Your task to perform on an android device: turn off airplane mode Image 0: 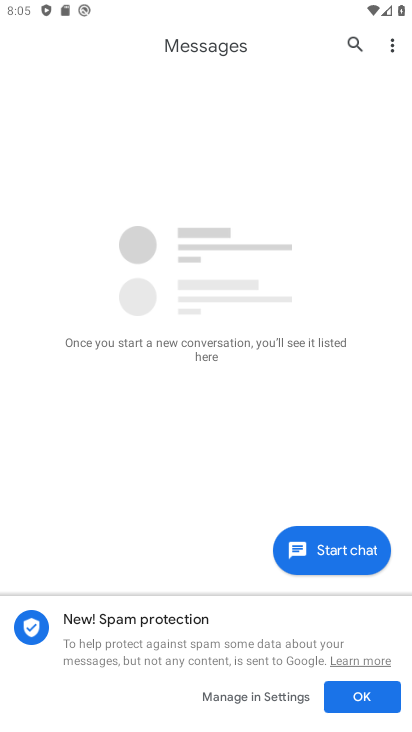
Step 0: press home button
Your task to perform on an android device: turn off airplane mode Image 1: 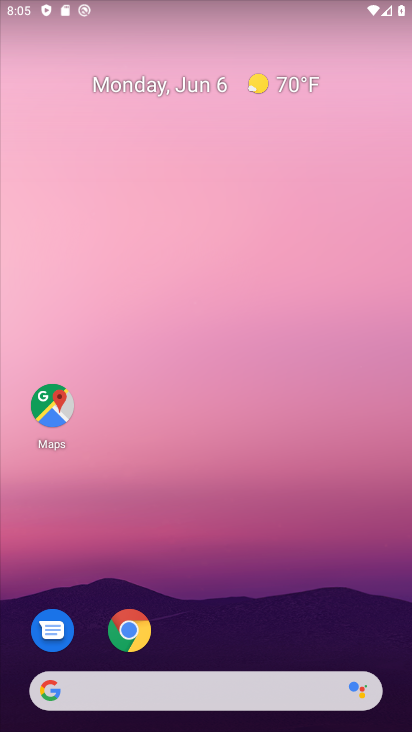
Step 1: drag from (233, 638) to (228, 290)
Your task to perform on an android device: turn off airplane mode Image 2: 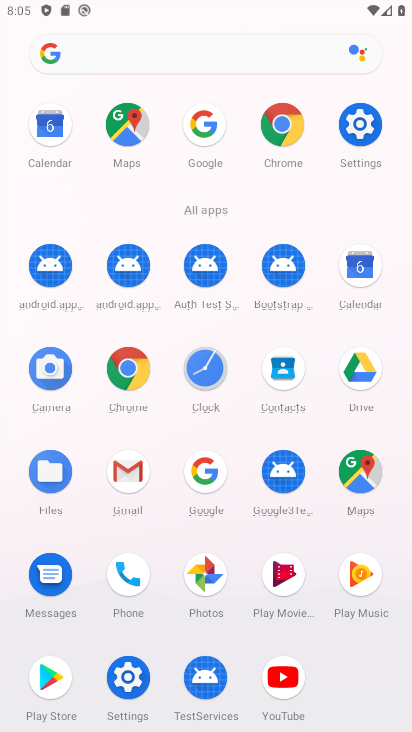
Step 2: click (360, 142)
Your task to perform on an android device: turn off airplane mode Image 3: 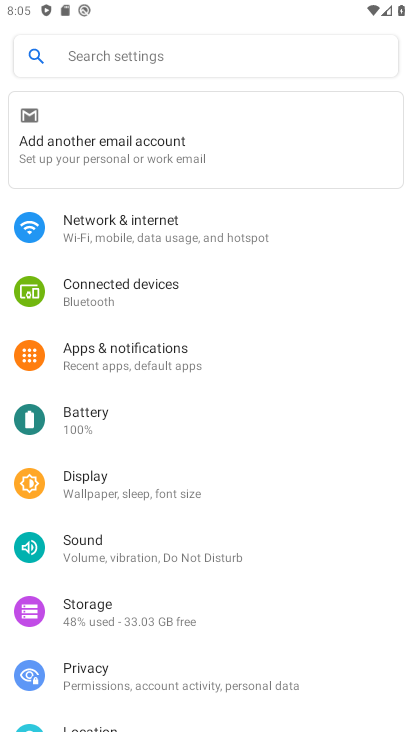
Step 3: click (208, 240)
Your task to perform on an android device: turn off airplane mode Image 4: 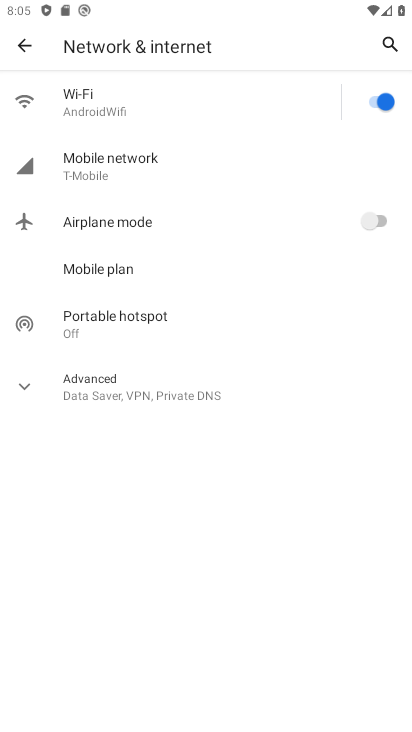
Step 4: task complete